Your task to perform on an android device: Open Google Chrome and click the shortcut for Amazon.com Image 0: 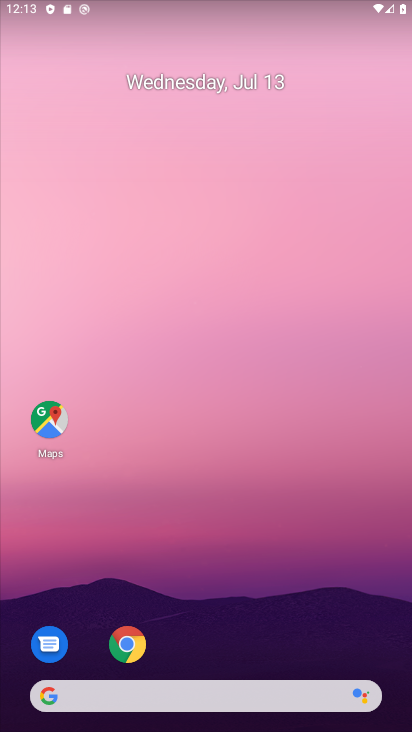
Step 0: drag from (282, 662) to (276, 176)
Your task to perform on an android device: Open Google Chrome and click the shortcut for Amazon.com Image 1: 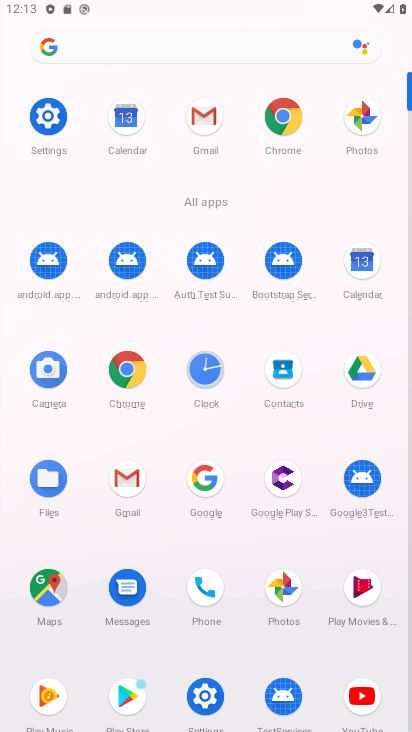
Step 1: click (125, 365)
Your task to perform on an android device: Open Google Chrome and click the shortcut for Amazon.com Image 2: 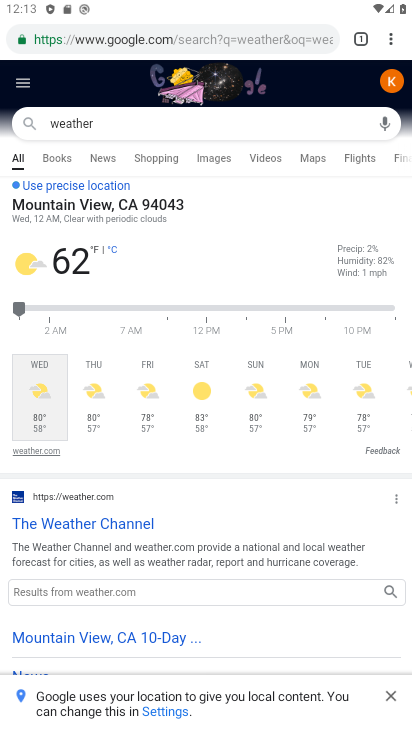
Step 2: click (263, 32)
Your task to perform on an android device: Open Google Chrome and click the shortcut for Amazon.com Image 3: 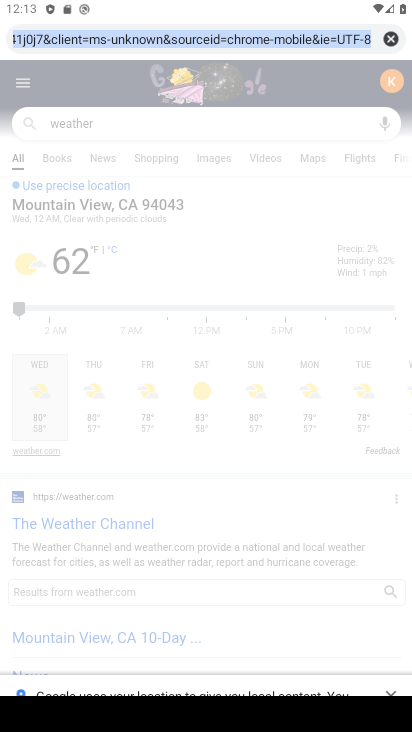
Step 3: type "a"
Your task to perform on an android device: Open Google Chrome and click the shortcut for Amazon.com Image 4: 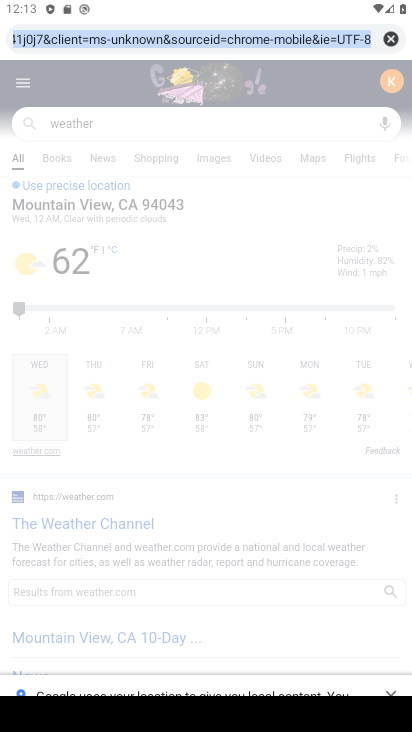
Step 4: click (395, 37)
Your task to perform on an android device: Open Google Chrome and click the shortcut for Amazon.com Image 5: 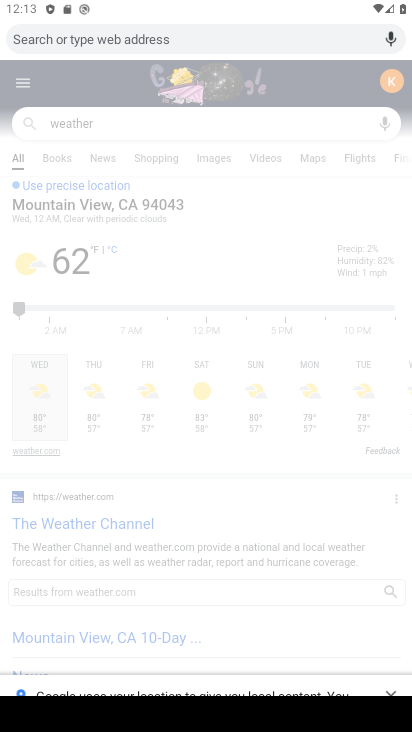
Step 5: click (203, 271)
Your task to perform on an android device: Open Google Chrome and click the shortcut for Amazon.com Image 6: 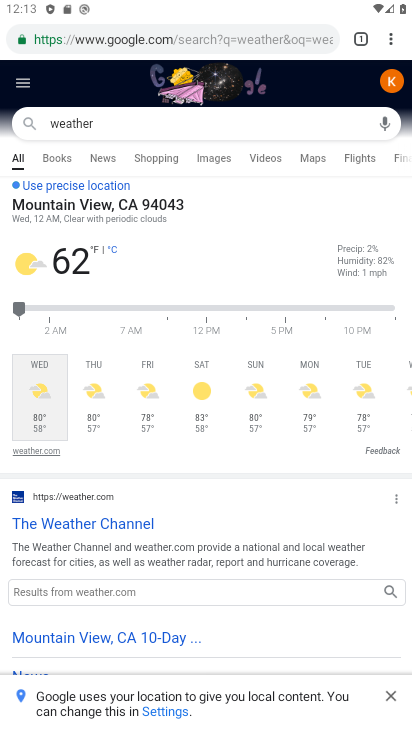
Step 6: drag from (400, 37) to (318, 79)
Your task to perform on an android device: Open Google Chrome and click the shortcut for Amazon.com Image 7: 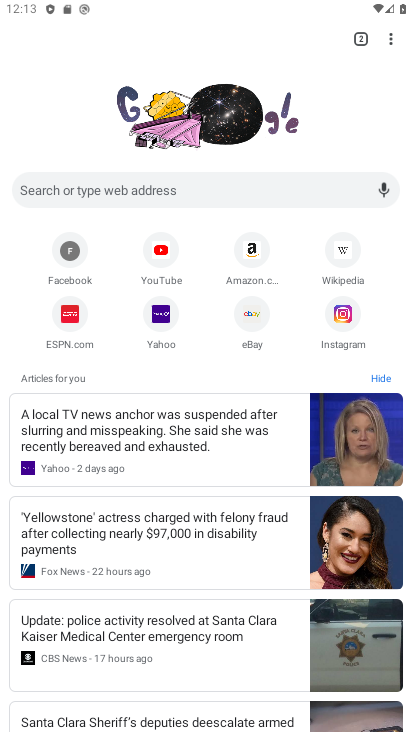
Step 7: click (256, 251)
Your task to perform on an android device: Open Google Chrome and click the shortcut for Amazon.com Image 8: 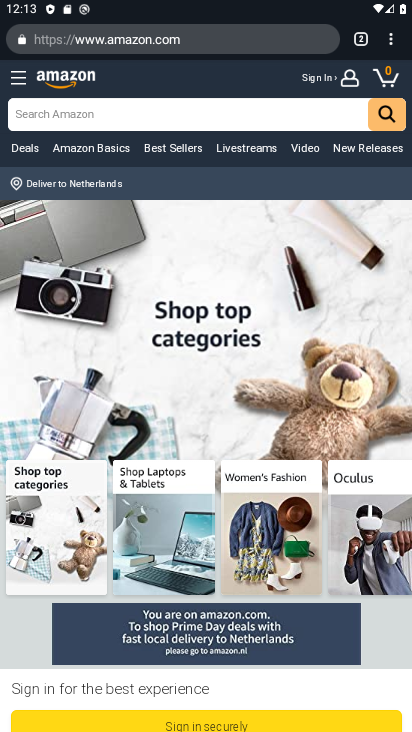
Step 8: task complete